Your task to perform on an android device: Open the calendar app, open the side menu, and click the "Day" option Image 0: 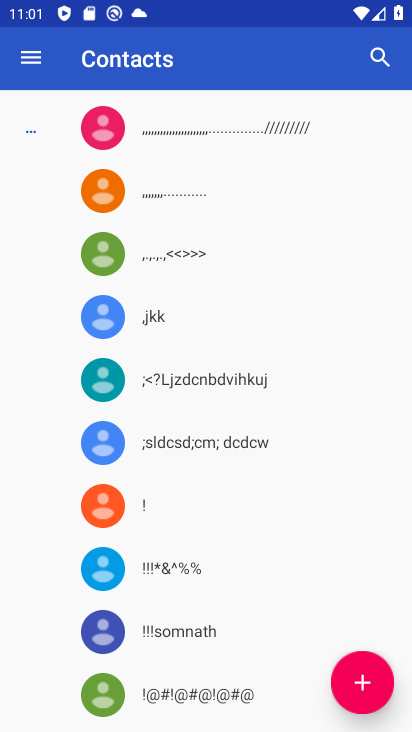
Step 0: press home button
Your task to perform on an android device: Open the calendar app, open the side menu, and click the "Day" option Image 1: 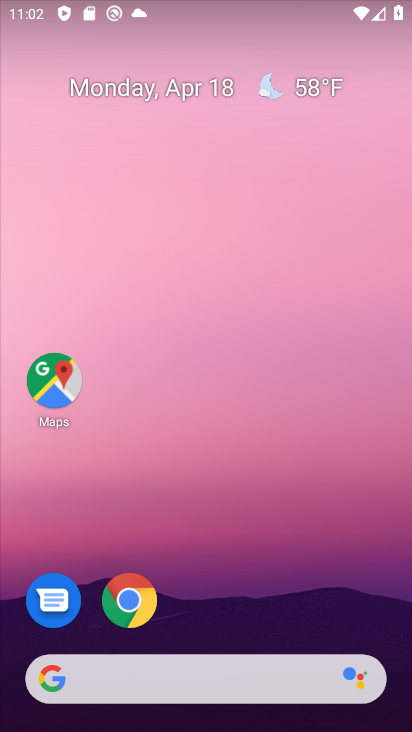
Step 1: drag from (182, 553) to (189, 12)
Your task to perform on an android device: Open the calendar app, open the side menu, and click the "Day" option Image 2: 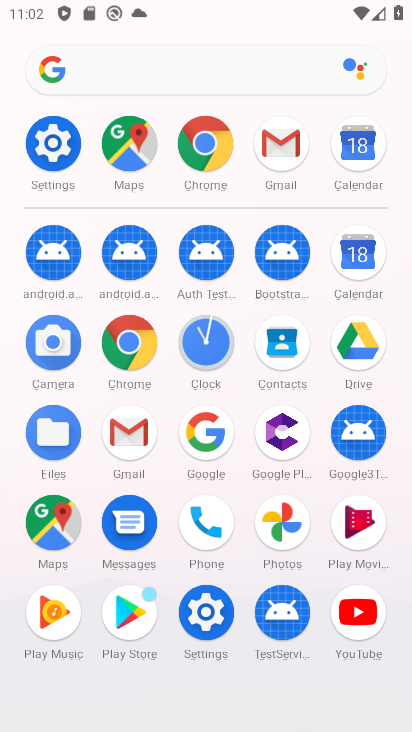
Step 2: click (364, 247)
Your task to perform on an android device: Open the calendar app, open the side menu, and click the "Day" option Image 3: 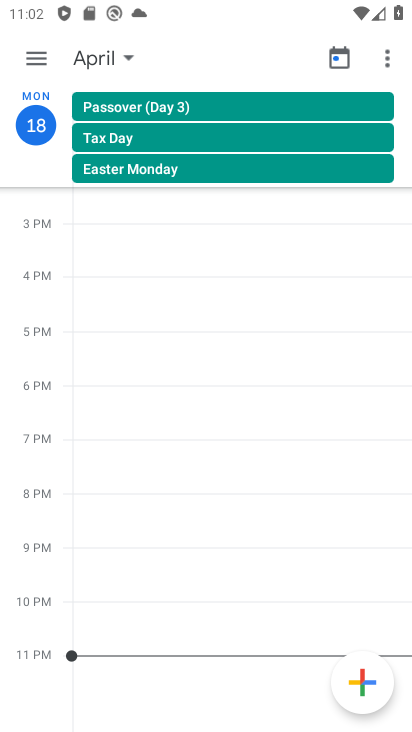
Step 3: click (29, 59)
Your task to perform on an android device: Open the calendar app, open the side menu, and click the "Day" option Image 4: 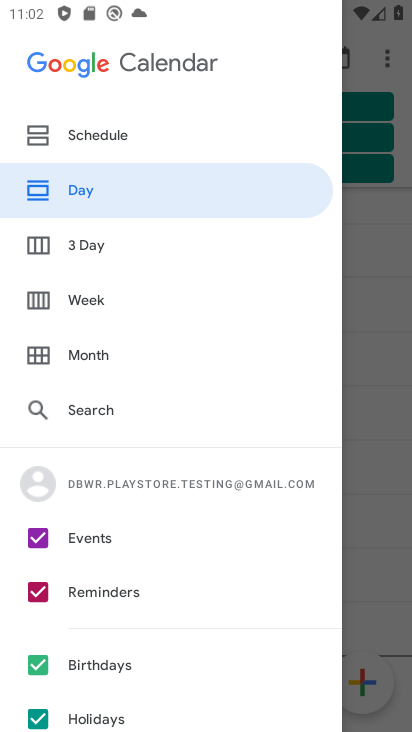
Step 4: click (92, 184)
Your task to perform on an android device: Open the calendar app, open the side menu, and click the "Day" option Image 5: 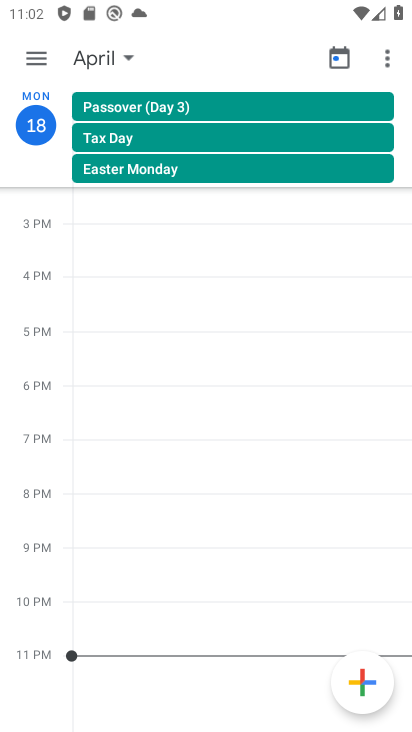
Step 5: task complete